Your task to perform on an android device: delete browsing data in the chrome app Image 0: 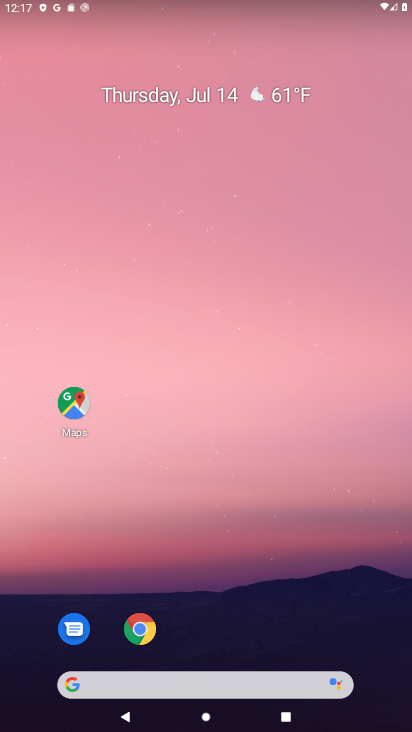
Step 0: click (142, 633)
Your task to perform on an android device: delete browsing data in the chrome app Image 1: 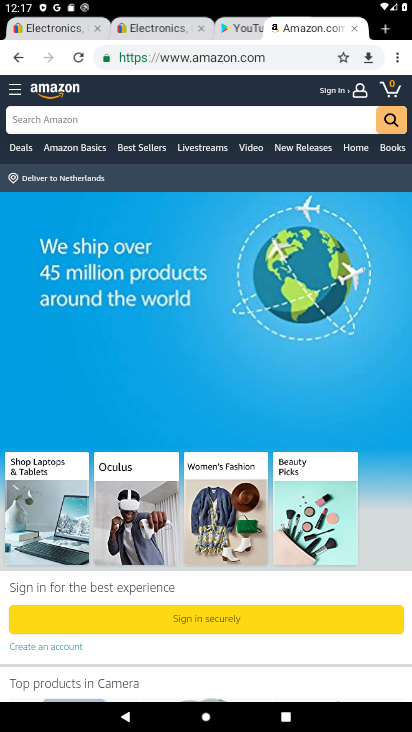
Step 1: click (404, 45)
Your task to perform on an android device: delete browsing data in the chrome app Image 2: 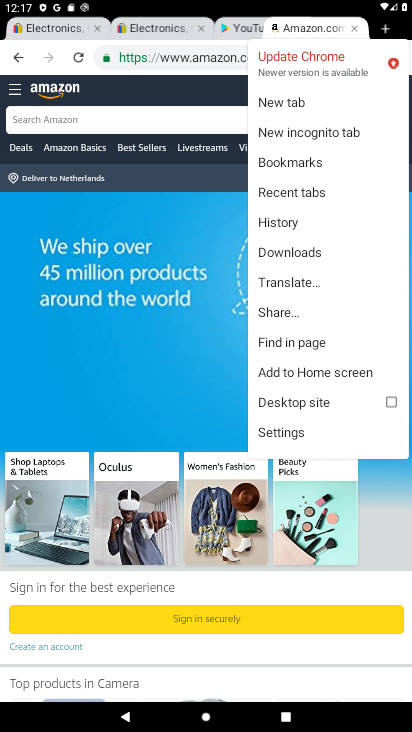
Step 2: click (303, 227)
Your task to perform on an android device: delete browsing data in the chrome app Image 3: 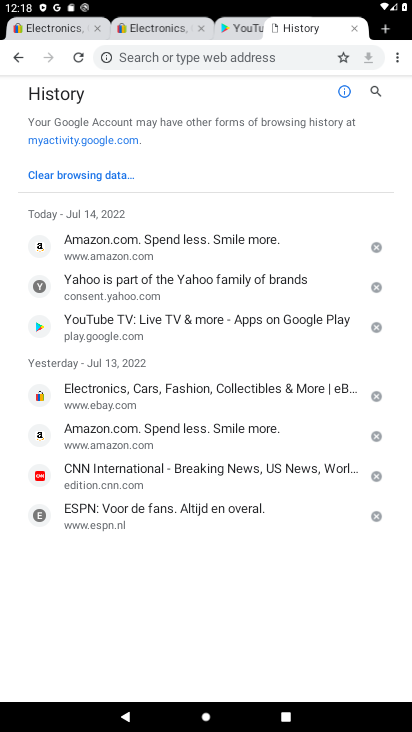
Step 3: click (103, 172)
Your task to perform on an android device: delete browsing data in the chrome app Image 4: 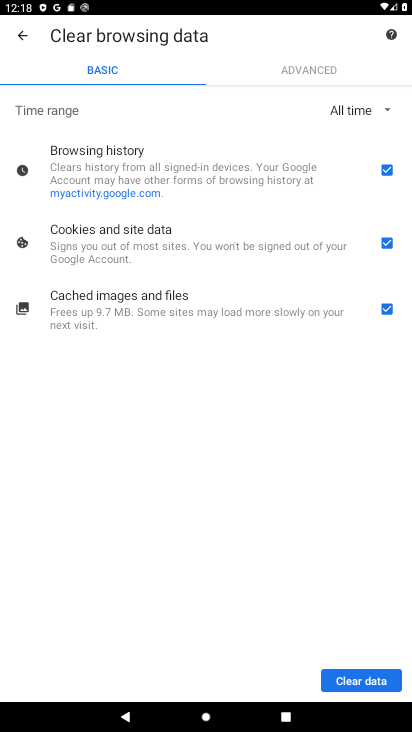
Step 4: click (386, 240)
Your task to perform on an android device: delete browsing data in the chrome app Image 5: 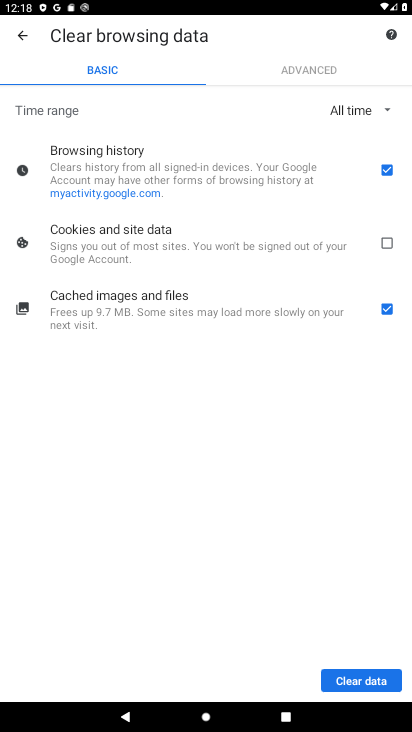
Step 5: click (385, 305)
Your task to perform on an android device: delete browsing data in the chrome app Image 6: 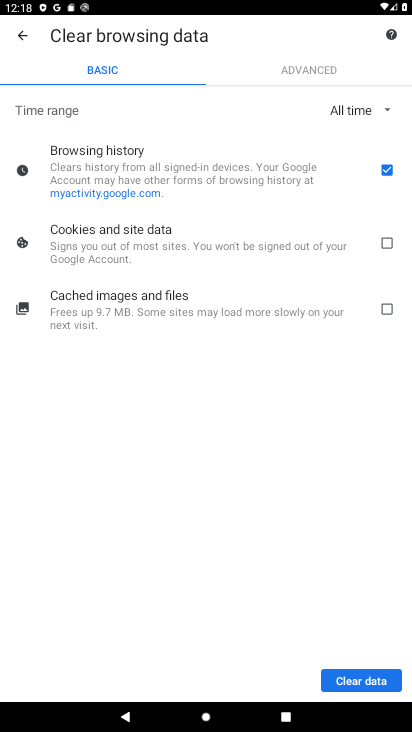
Step 6: click (350, 674)
Your task to perform on an android device: delete browsing data in the chrome app Image 7: 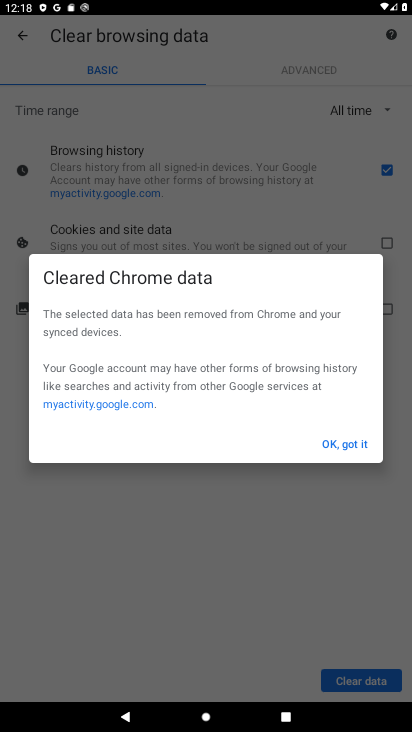
Step 7: click (357, 441)
Your task to perform on an android device: delete browsing data in the chrome app Image 8: 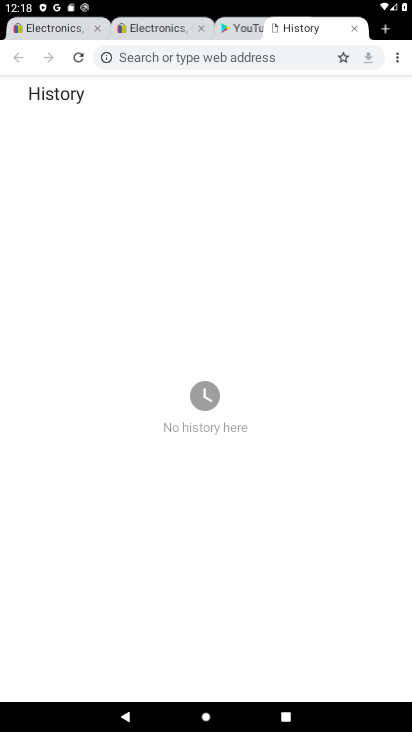
Step 8: task complete